Your task to perform on an android device: toggle pop-ups in chrome Image 0: 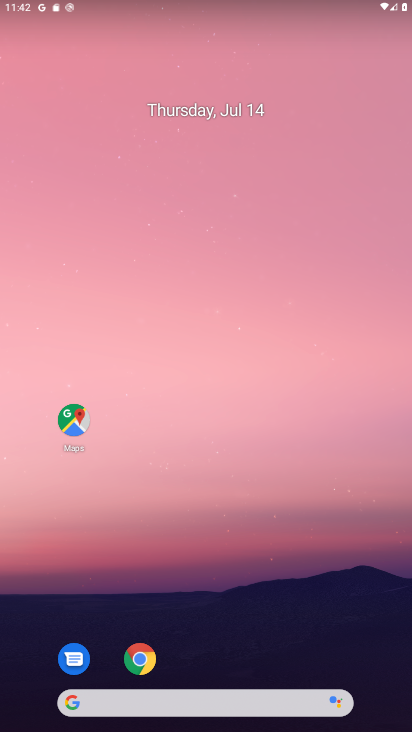
Step 0: click (132, 659)
Your task to perform on an android device: toggle pop-ups in chrome Image 1: 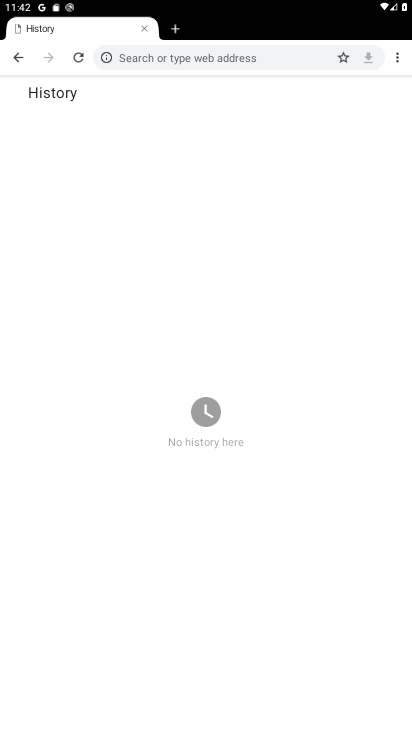
Step 1: click (404, 57)
Your task to perform on an android device: toggle pop-ups in chrome Image 2: 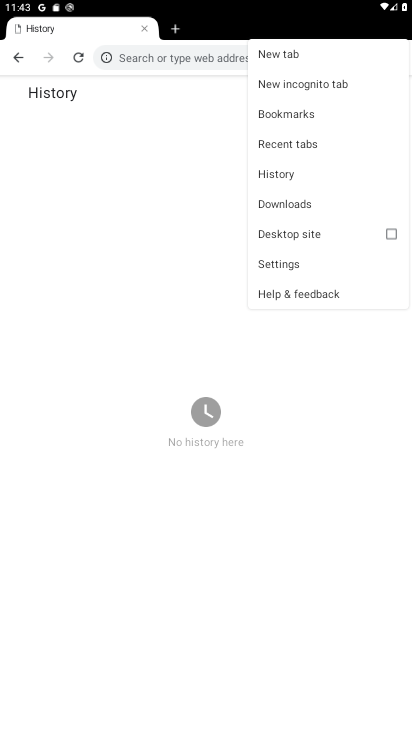
Step 2: click (304, 267)
Your task to perform on an android device: toggle pop-ups in chrome Image 3: 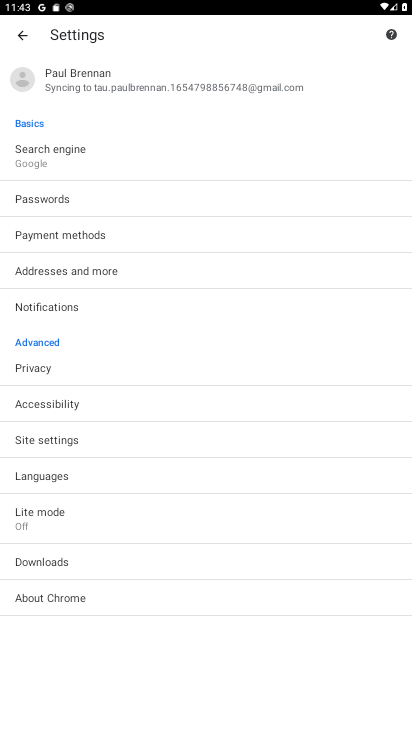
Step 3: click (97, 438)
Your task to perform on an android device: toggle pop-ups in chrome Image 4: 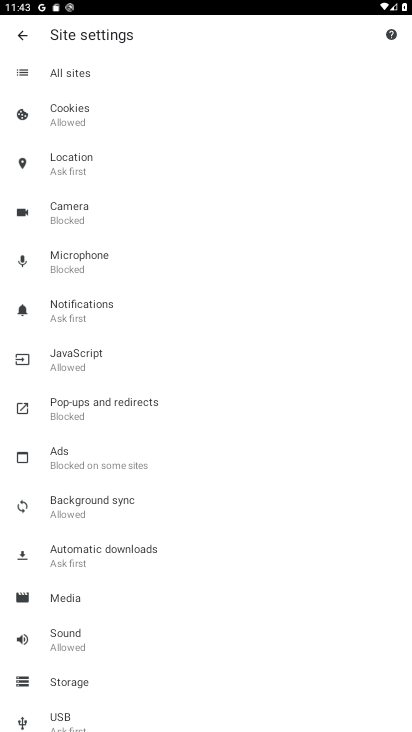
Step 4: click (105, 412)
Your task to perform on an android device: toggle pop-ups in chrome Image 5: 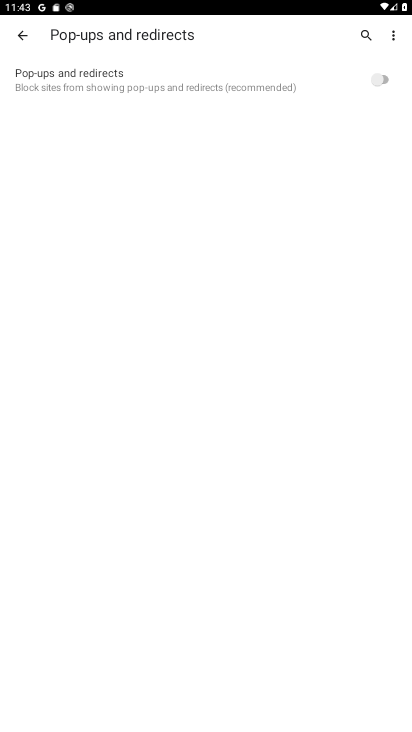
Step 5: click (295, 69)
Your task to perform on an android device: toggle pop-ups in chrome Image 6: 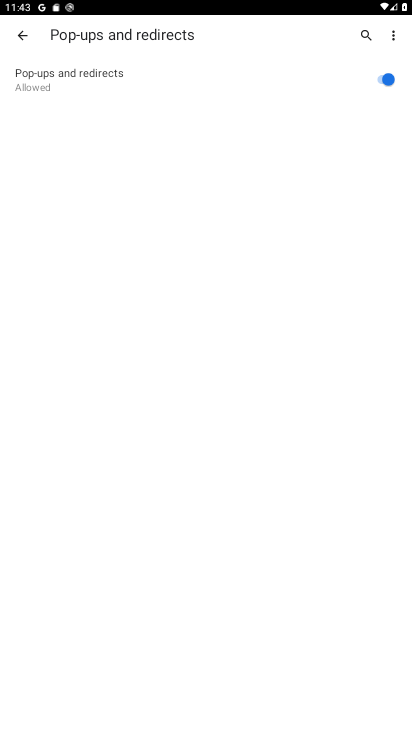
Step 6: task complete